Your task to perform on an android device: View the shopping cart on target. Add "razer blade" to the cart on target Image 0: 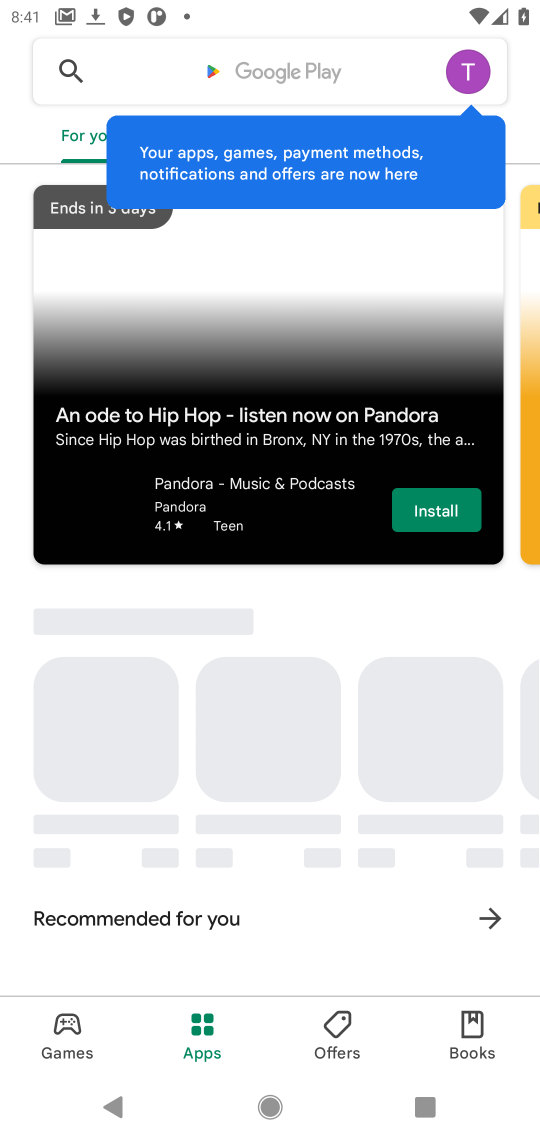
Step 0: press home button
Your task to perform on an android device: View the shopping cart on target. Add "razer blade" to the cart on target Image 1: 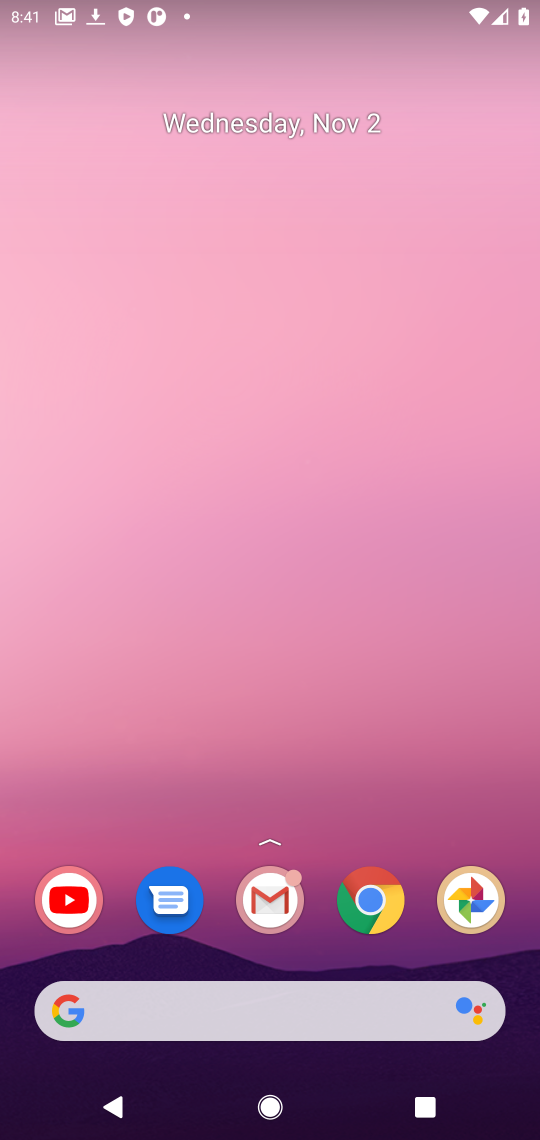
Step 1: click (395, 892)
Your task to perform on an android device: View the shopping cart on target. Add "razer blade" to the cart on target Image 2: 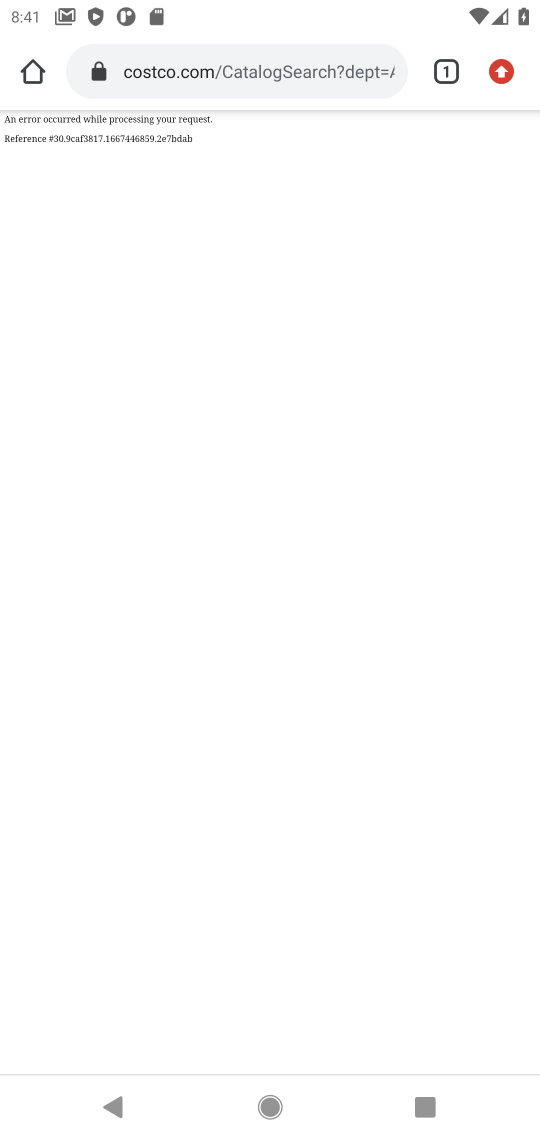
Step 2: click (127, 81)
Your task to perform on an android device: View the shopping cart on target. Add "razer blade" to the cart on target Image 3: 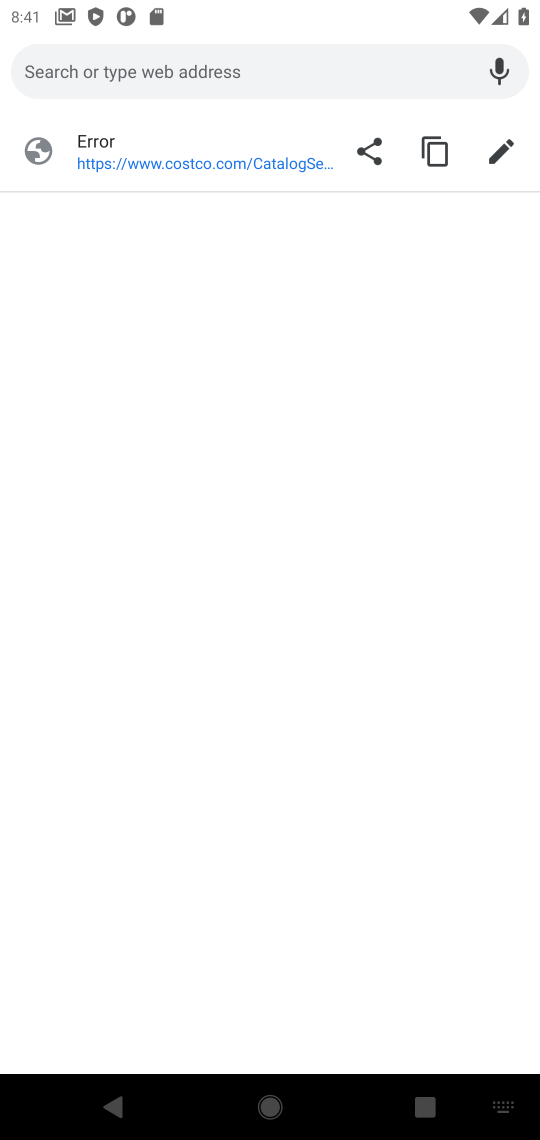
Step 3: type "target"
Your task to perform on an android device: View the shopping cart on target. Add "razer blade" to the cart on target Image 4: 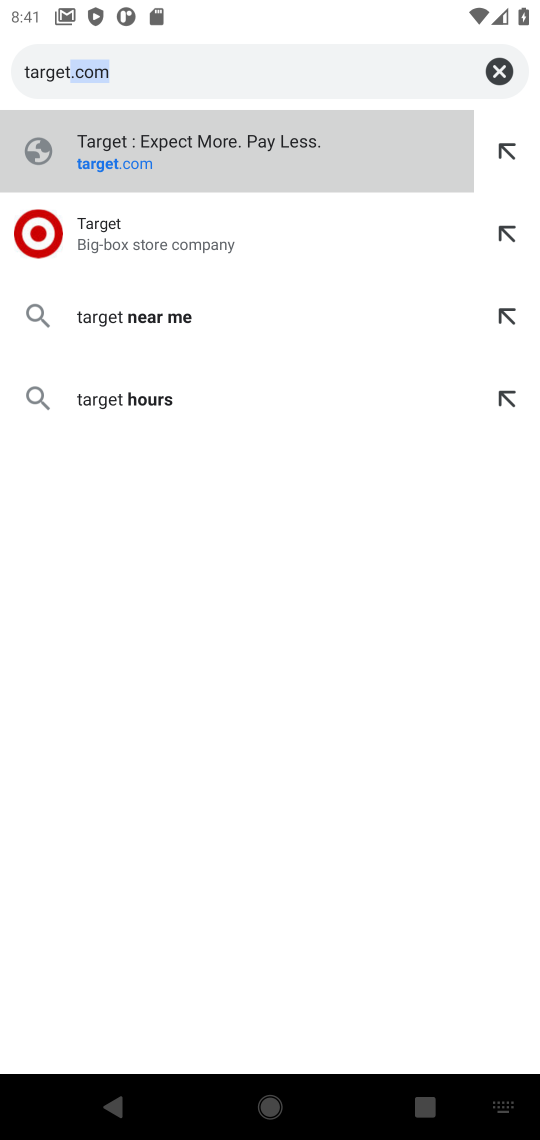
Step 4: click (13, 240)
Your task to perform on an android device: View the shopping cart on target. Add "razer blade" to the cart on target Image 5: 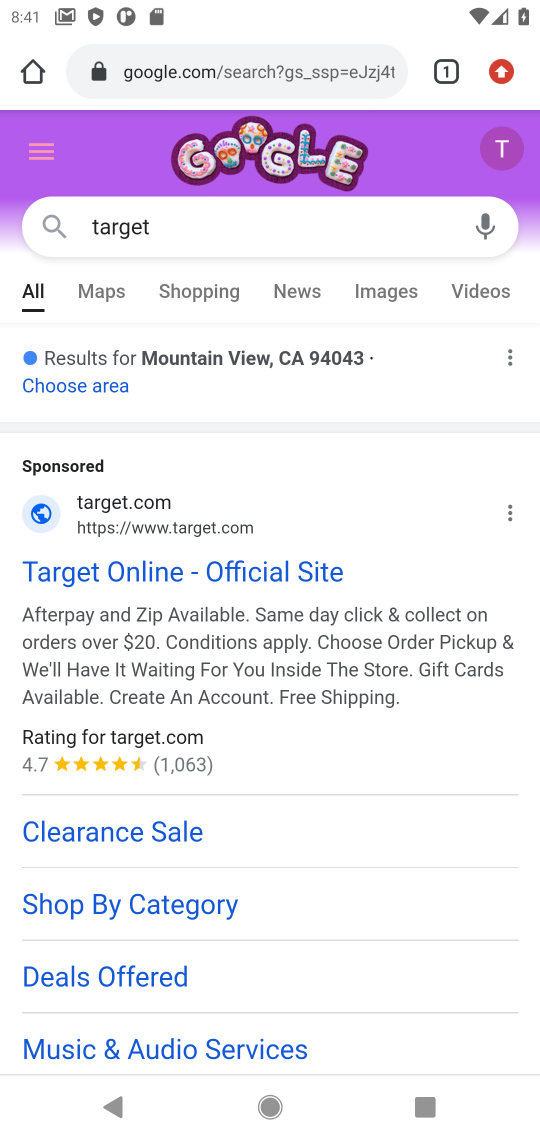
Step 5: click (94, 581)
Your task to perform on an android device: View the shopping cart on target. Add "razer blade" to the cart on target Image 6: 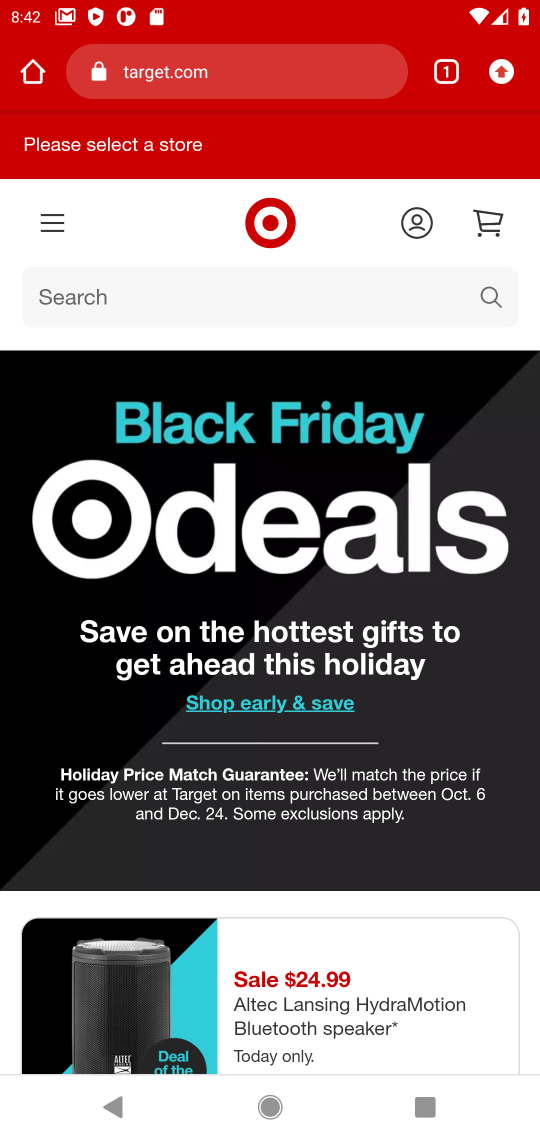
Step 6: click (479, 228)
Your task to perform on an android device: View the shopping cart on target. Add "razer blade" to the cart on target Image 7: 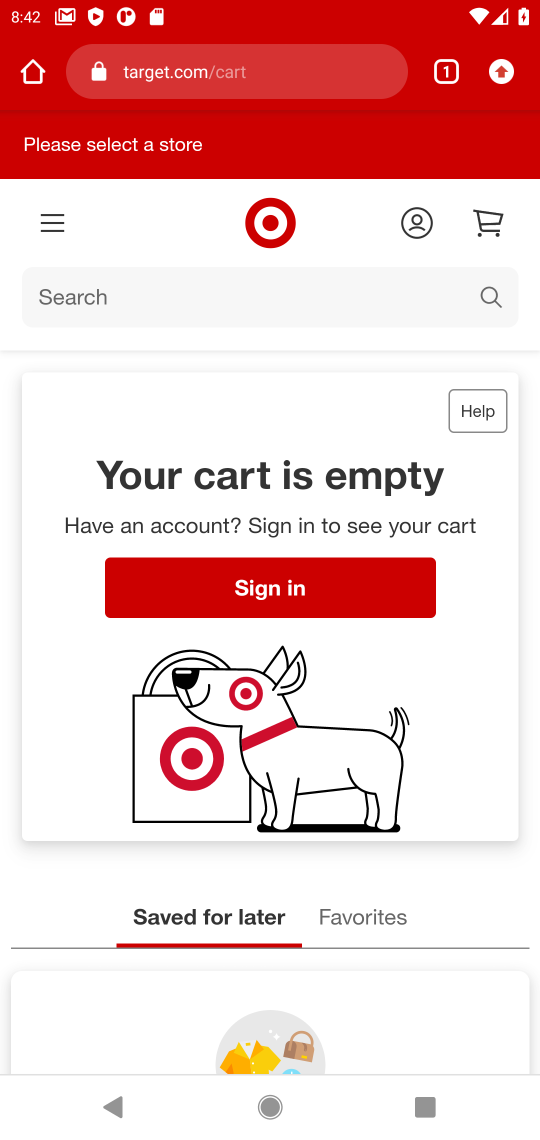
Step 7: click (256, 305)
Your task to perform on an android device: View the shopping cart on target. Add "razer blade" to the cart on target Image 8: 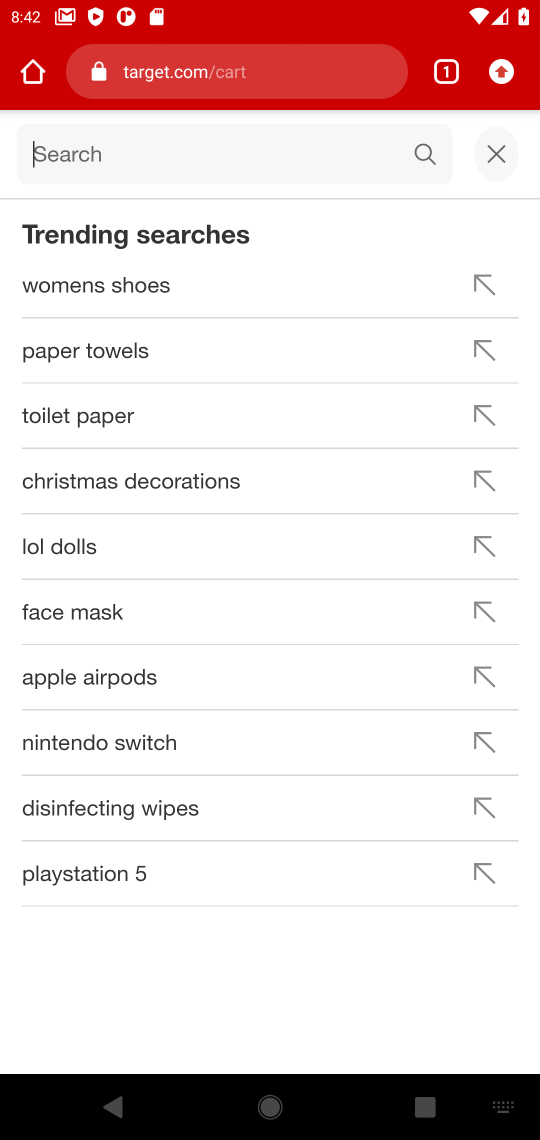
Step 8: type "razer blade"
Your task to perform on an android device: View the shopping cart on target. Add "razer blade" to the cart on target Image 9: 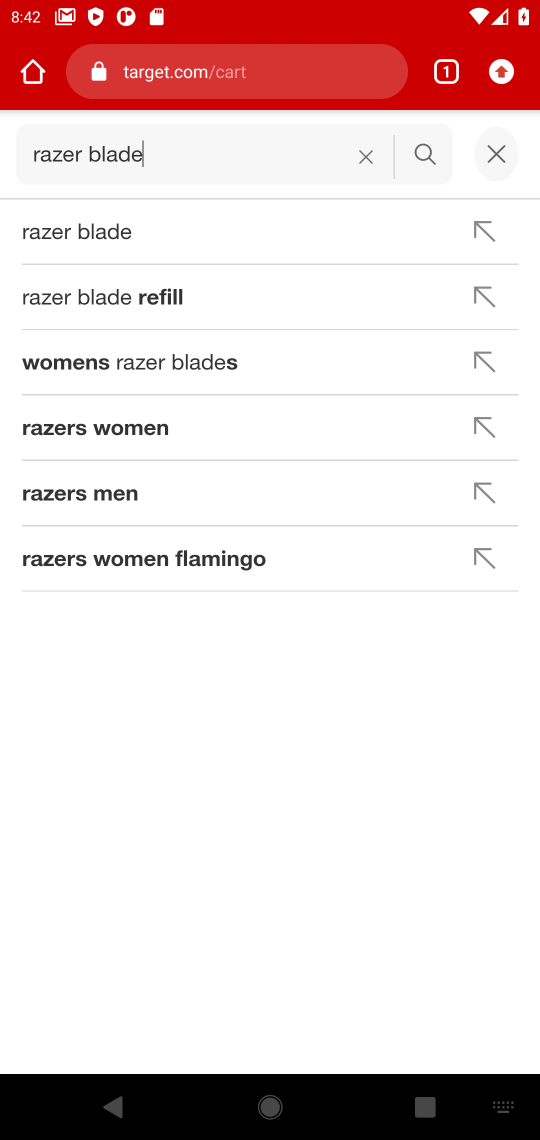
Step 9: click (422, 152)
Your task to perform on an android device: View the shopping cart on target. Add "razer blade" to the cart on target Image 10: 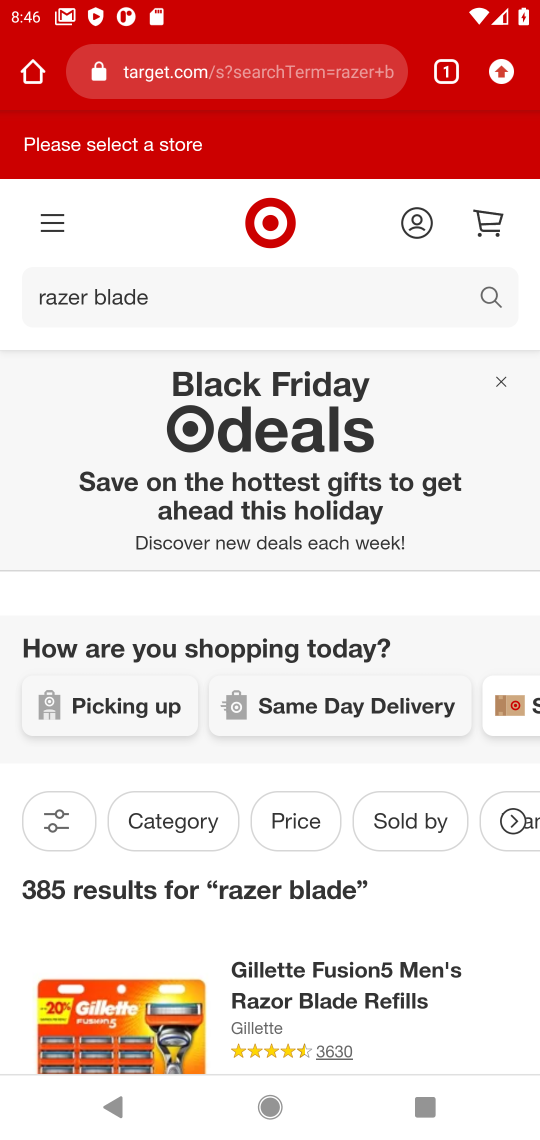
Step 10: task complete